Your task to perform on an android device: clear history in the chrome app Image 0: 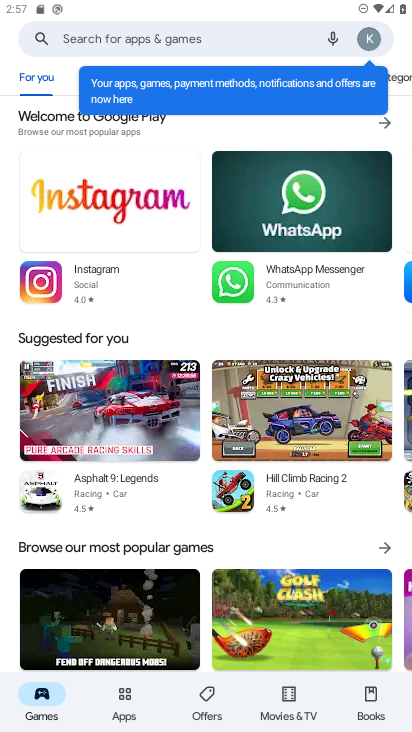
Step 0: press home button
Your task to perform on an android device: clear history in the chrome app Image 1: 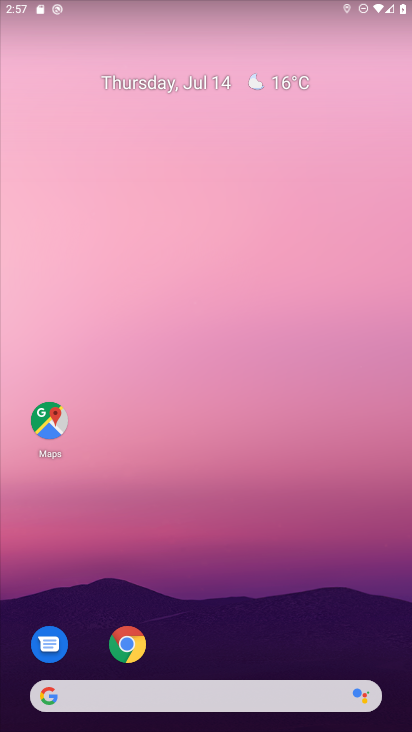
Step 1: click (130, 638)
Your task to perform on an android device: clear history in the chrome app Image 2: 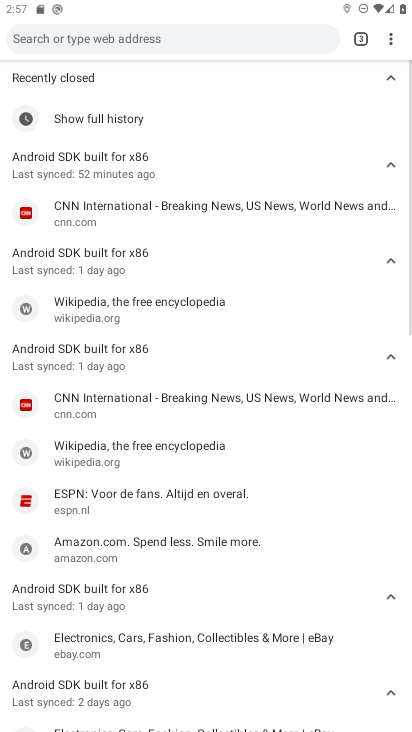
Step 2: click (391, 41)
Your task to perform on an android device: clear history in the chrome app Image 3: 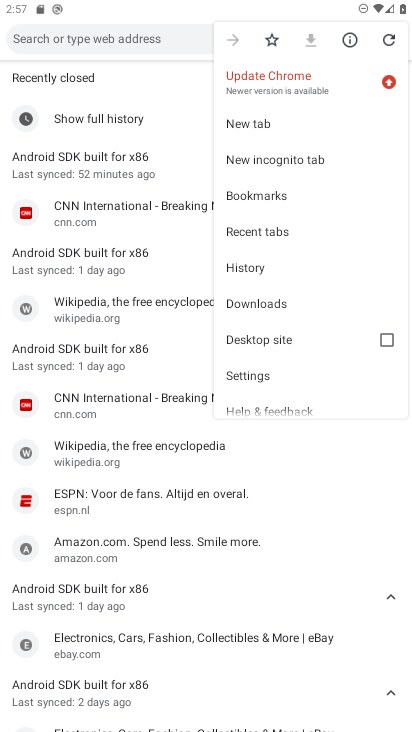
Step 3: click (259, 272)
Your task to perform on an android device: clear history in the chrome app Image 4: 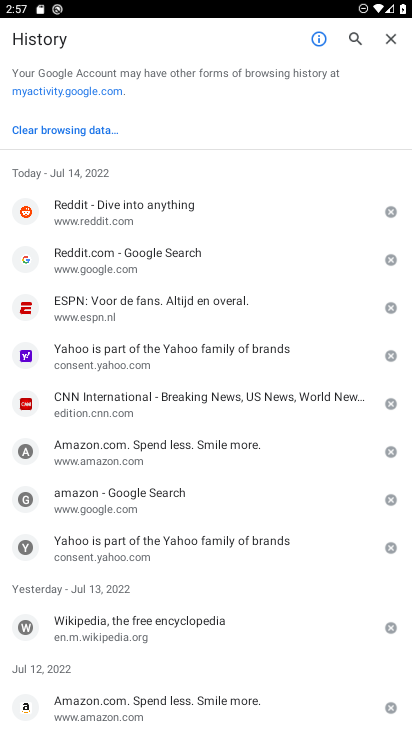
Step 4: click (94, 134)
Your task to perform on an android device: clear history in the chrome app Image 5: 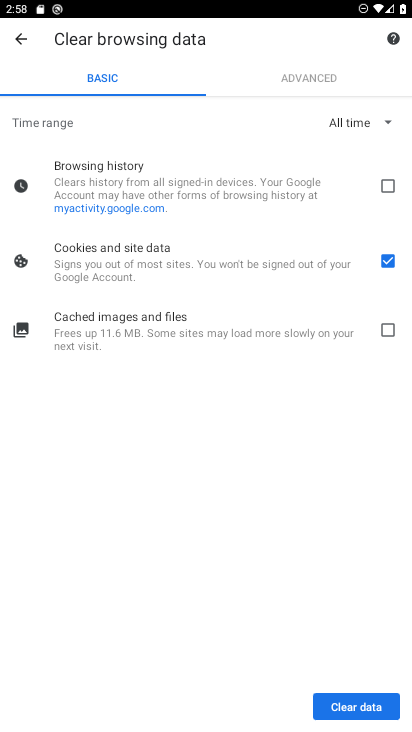
Step 5: click (369, 702)
Your task to perform on an android device: clear history in the chrome app Image 6: 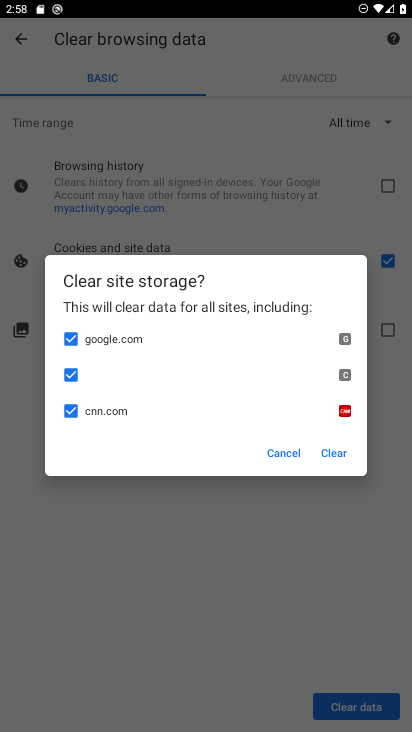
Step 6: click (336, 455)
Your task to perform on an android device: clear history in the chrome app Image 7: 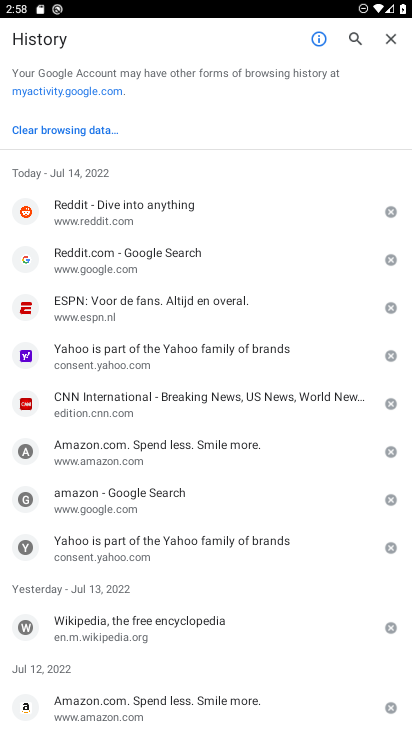
Step 7: task complete